Your task to perform on an android device: turn off smart reply in the gmail app Image 0: 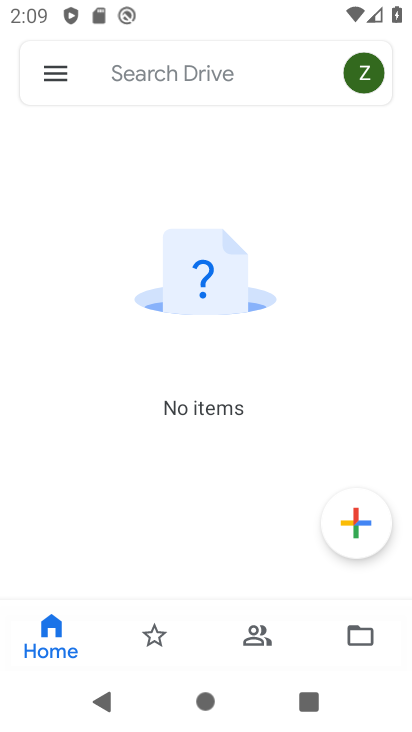
Step 0: press home button
Your task to perform on an android device: turn off smart reply in the gmail app Image 1: 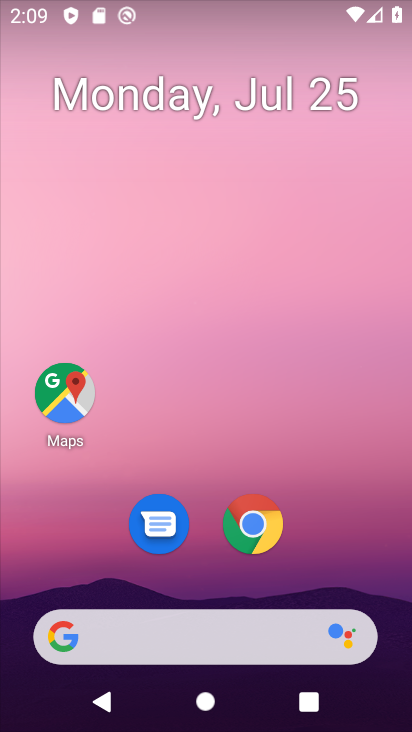
Step 1: drag from (241, 635) to (374, 0)
Your task to perform on an android device: turn off smart reply in the gmail app Image 2: 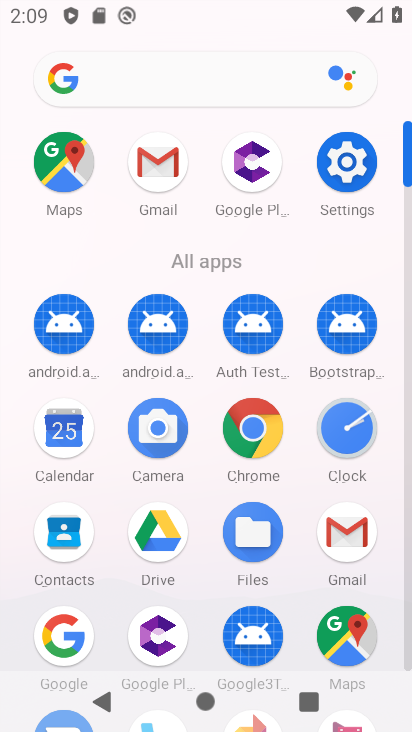
Step 2: click (160, 171)
Your task to perform on an android device: turn off smart reply in the gmail app Image 3: 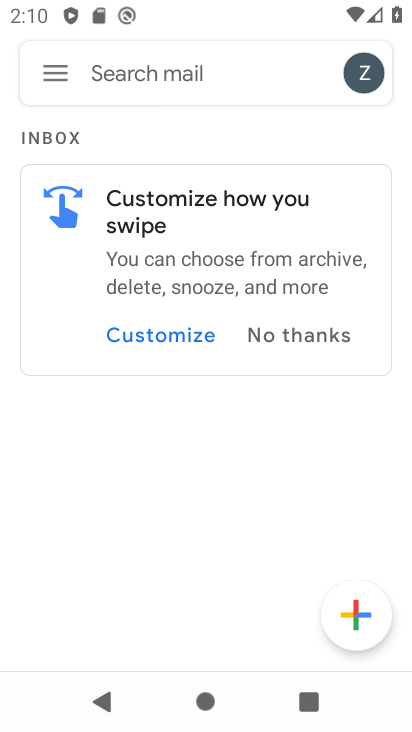
Step 3: click (55, 77)
Your task to perform on an android device: turn off smart reply in the gmail app Image 4: 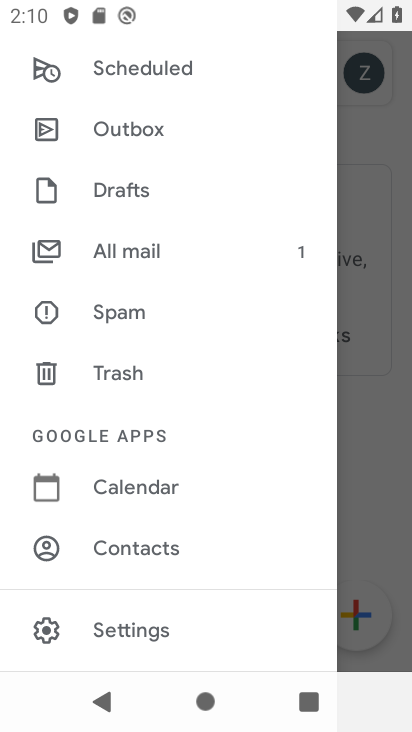
Step 4: click (152, 630)
Your task to perform on an android device: turn off smart reply in the gmail app Image 5: 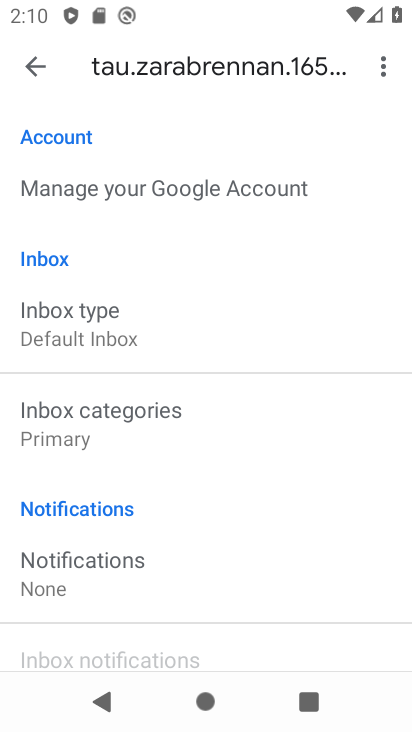
Step 5: drag from (248, 519) to (306, 2)
Your task to perform on an android device: turn off smart reply in the gmail app Image 6: 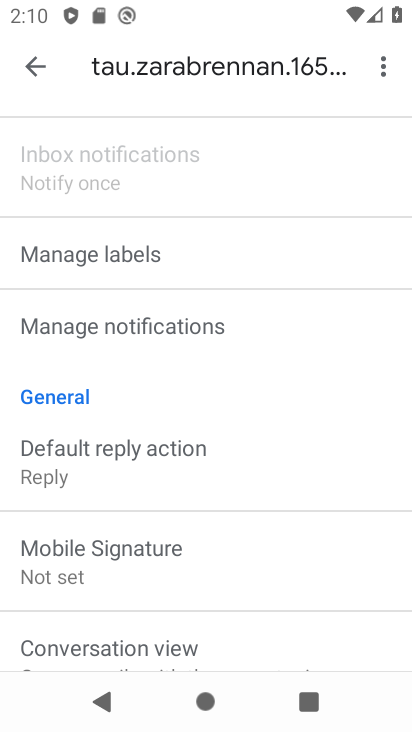
Step 6: drag from (280, 578) to (357, 57)
Your task to perform on an android device: turn off smart reply in the gmail app Image 7: 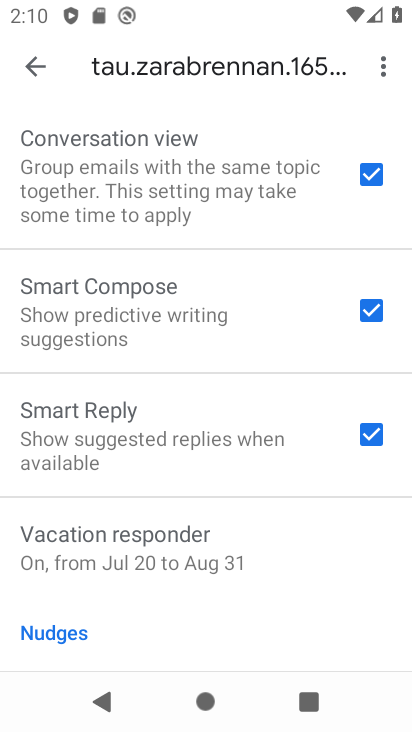
Step 7: click (370, 428)
Your task to perform on an android device: turn off smart reply in the gmail app Image 8: 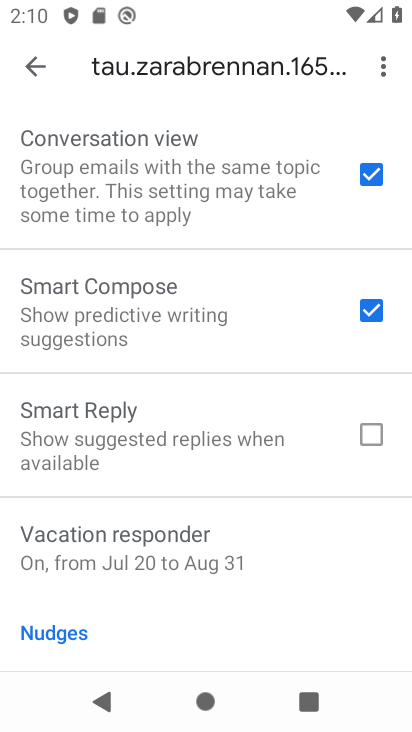
Step 8: task complete